Your task to perform on an android device: find snoozed emails in the gmail app Image 0: 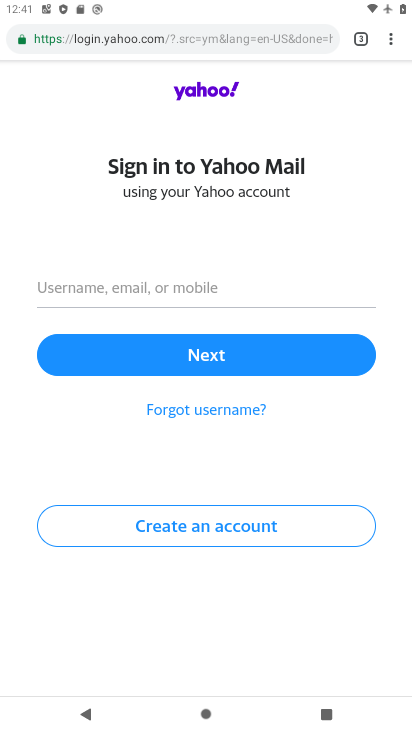
Step 0: press home button
Your task to perform on an android device: find snoozed emails in the gmail app Image 1: 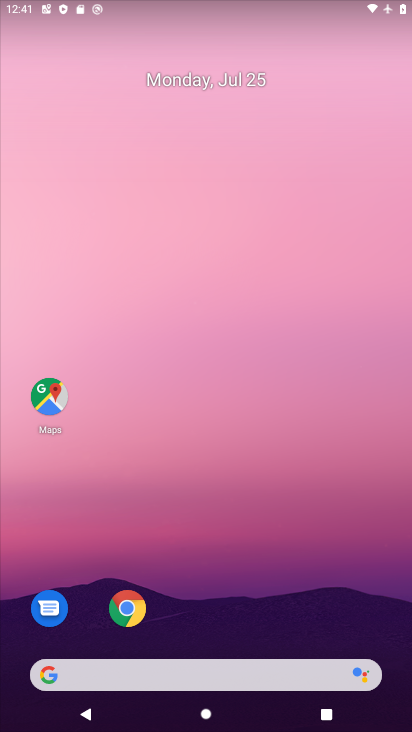
Step 1: drag from (158, 694) to (186, 295)
Your task to perform on an android device: find snoozed emails in the gmail app Image 2: 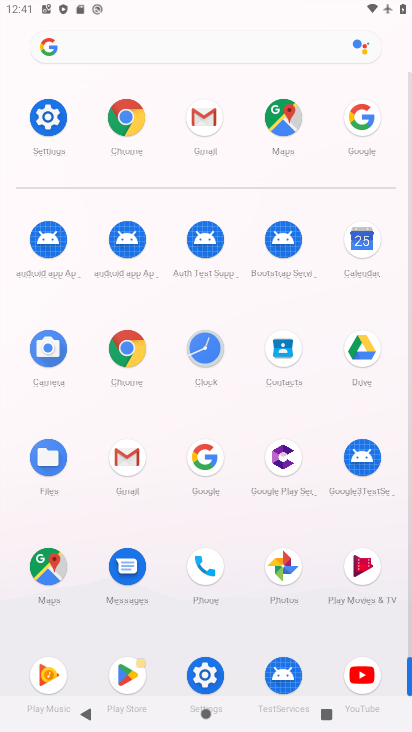
Step 2: click (137, 483)
Your task to perform on an android device: find snoozed emails in the gmail app Image 3: 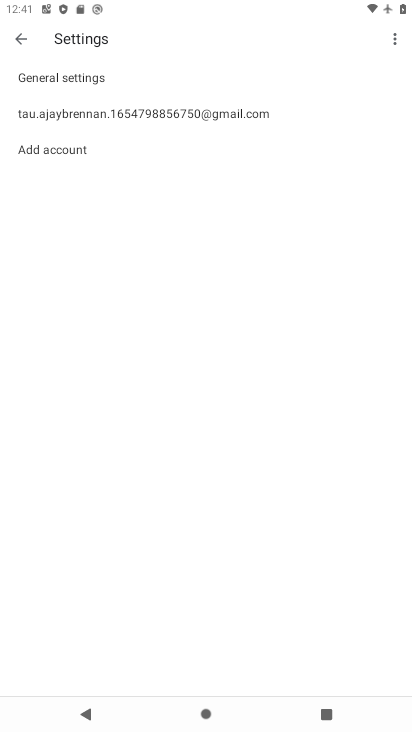
Step 3: click (27, 42)
Your task to perform on an android device: find snoozed emails in the gmail app Image 4: 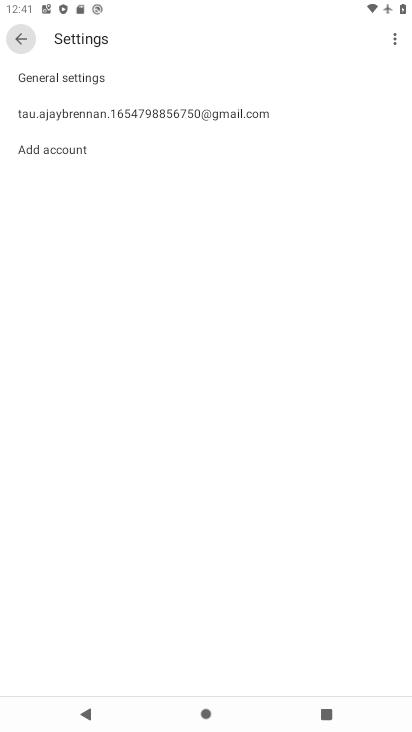
Step 4: click (19, 38)
Your task to perform on an android device: find snoozed emails in the gmail app Image 5: 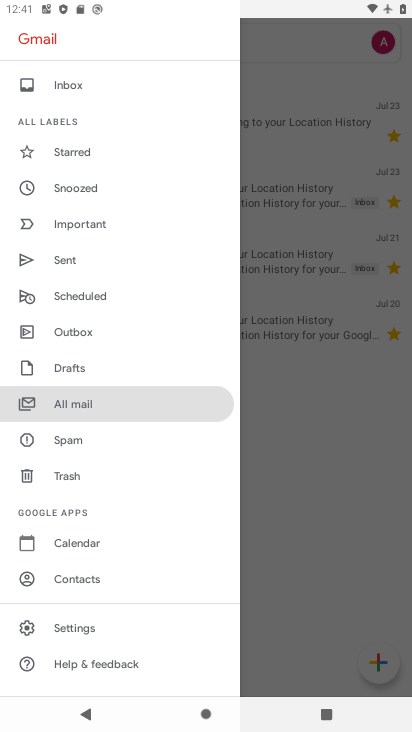
Step 5: click (73, 191)
Your task to perform on an android device: find snoozed emails in the gmail app Image 6: 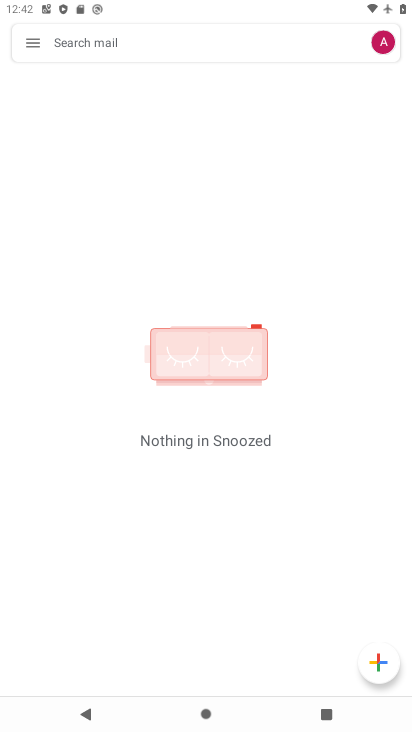
Step 6: task complete